Your task to perform on an android device: Turn on the flashlight Image 0: 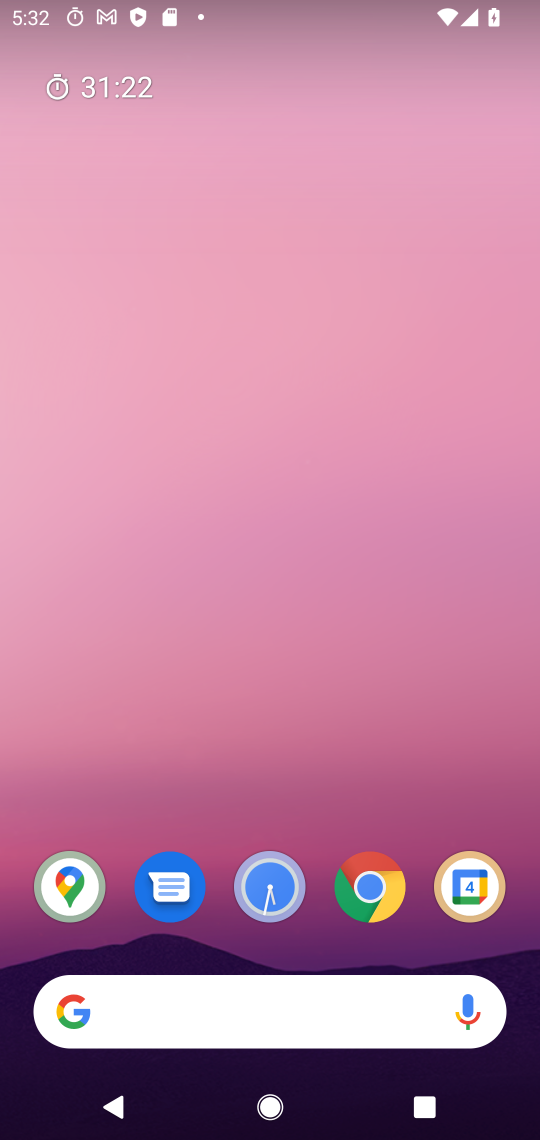
Step 0: drag from (510, 1074) to (424, 83)
Your task to perform on an android device: Turn on the flashlight Image 1: 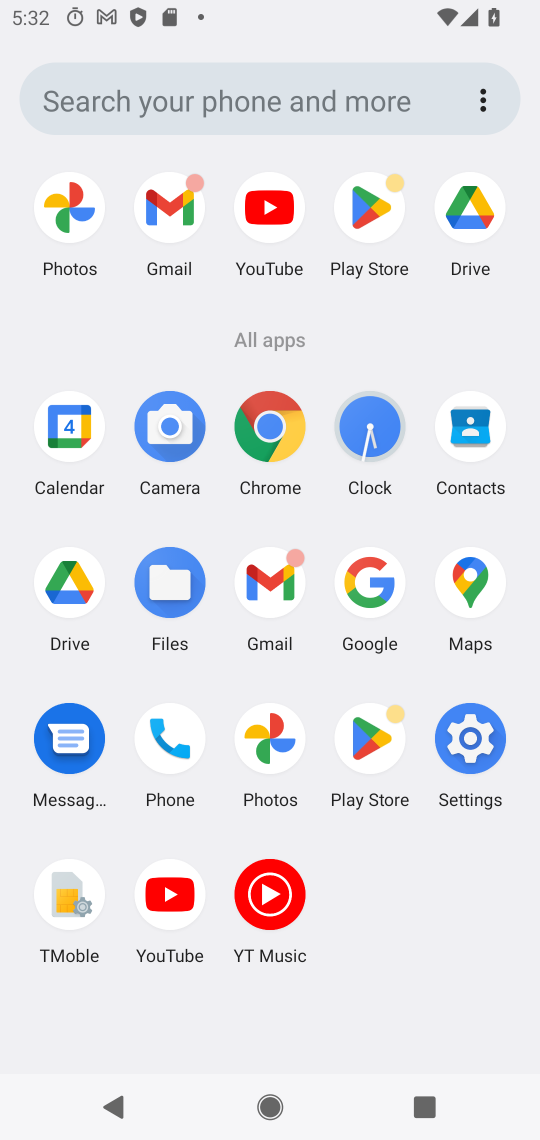
Step 1: click (476, 739)
Your task to perform on an android device: Turn on the flashlight Image 2: 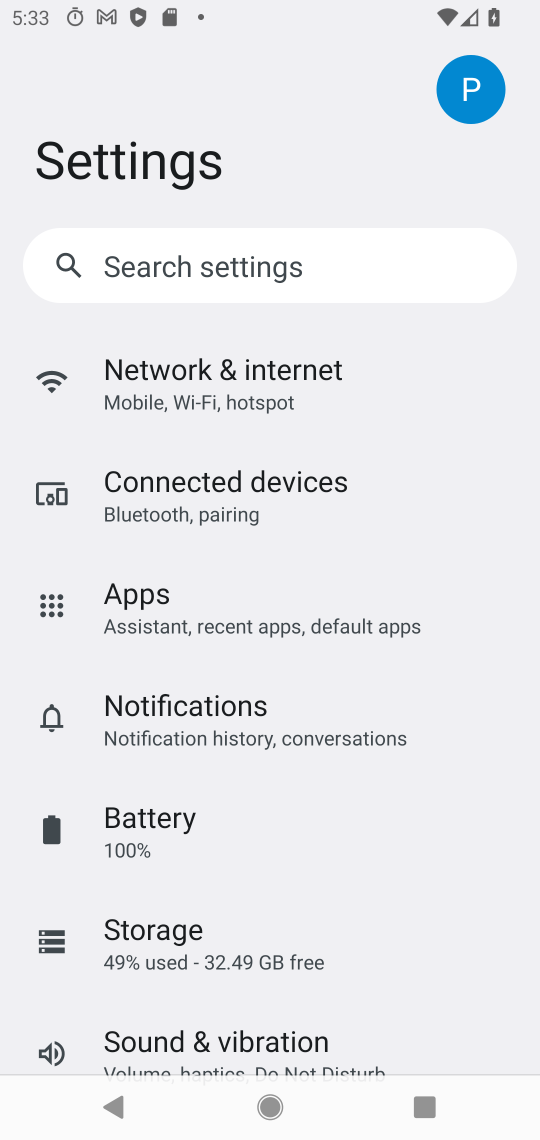
Step 2: click (145, 820)
Your task to perform on an android device: Turn on the flashlight Image 3: 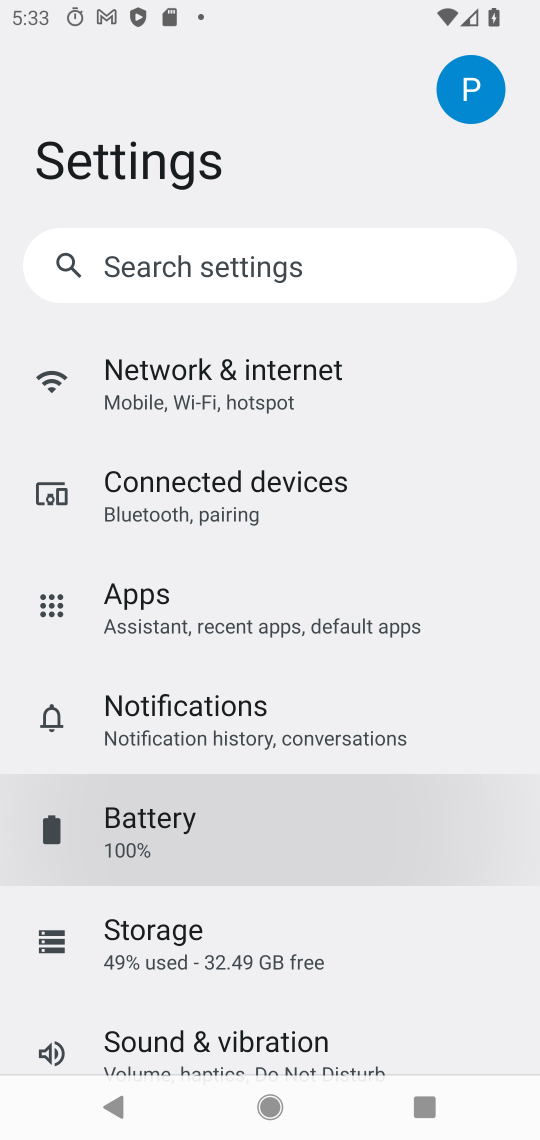
Step 3: task complete